Your task to perform on an android device: check storage Image 0: 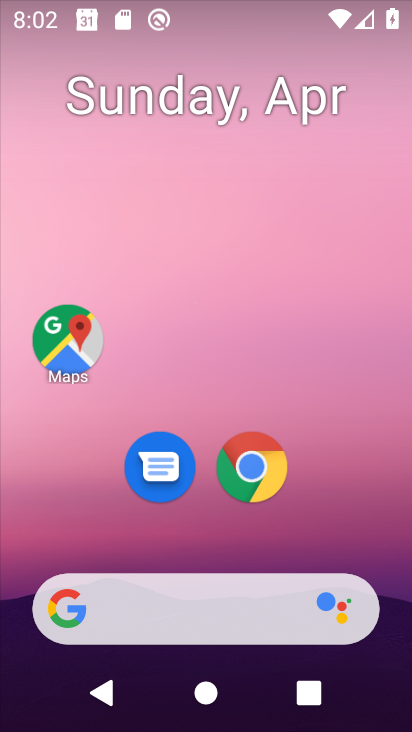
Step 0: drag from (337, 546) to (278, 108)
Your task to perform on an android device: check storage Image 1: 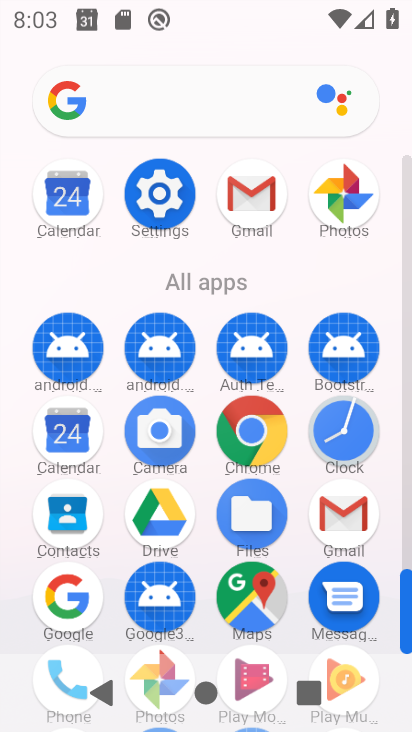
Step 1: click (148, 202)
Your task to perform on an android device: check storage Image 2: 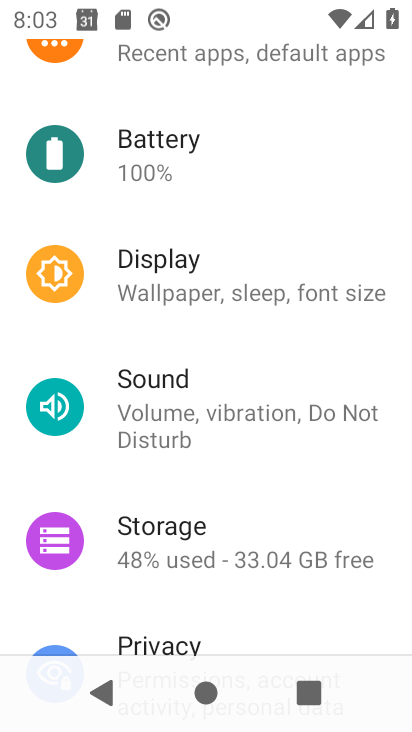
Step 2: click (237, 530)
Your task to perform on an android device: check storage Image 3: 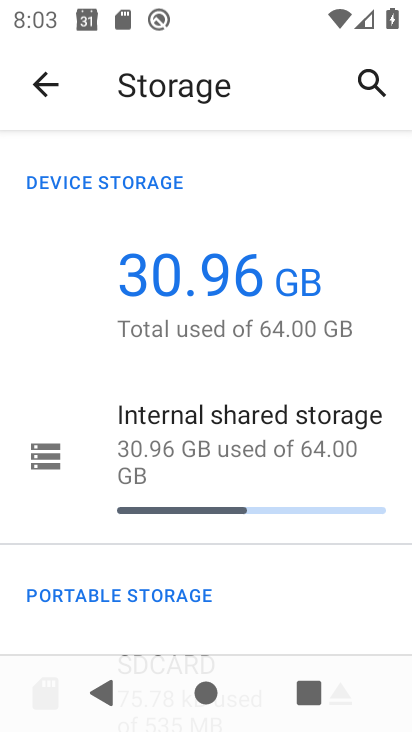
Step 3: task complete